Your task to perform on an android device: Open the stopwatch Image 0: 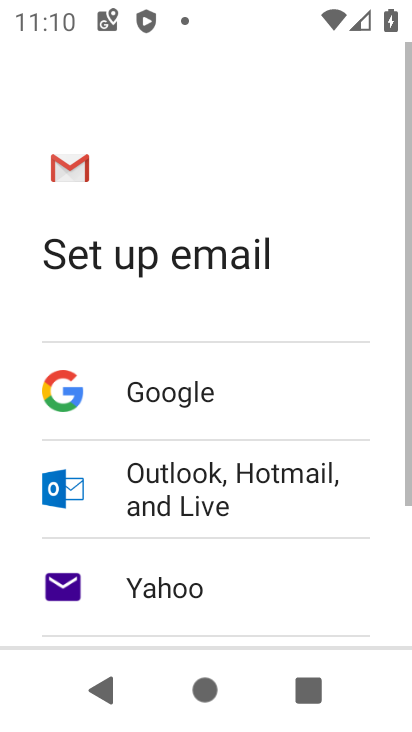
Step 0: press home button
Your task to perform on an android device: Open the stopwatch Image 1: 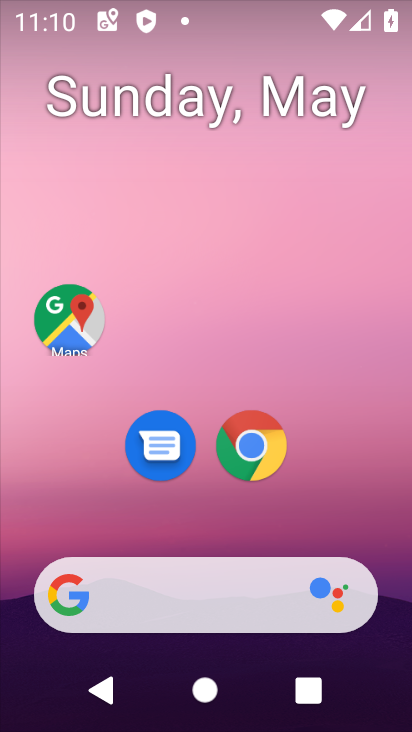
Step 1: drag from (336, 508) to (238, 52)
Your task to perform on an android device: Open the stopwatch Image 2: 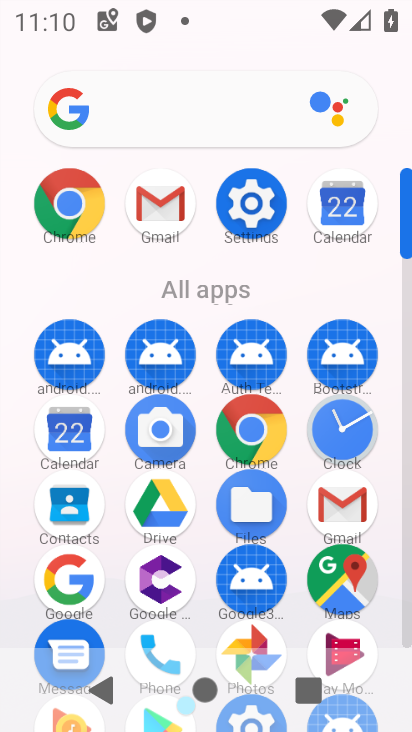
Step 2: click (344, 433)
Your task to perform on an android device: Open the stopwatch Image 3: 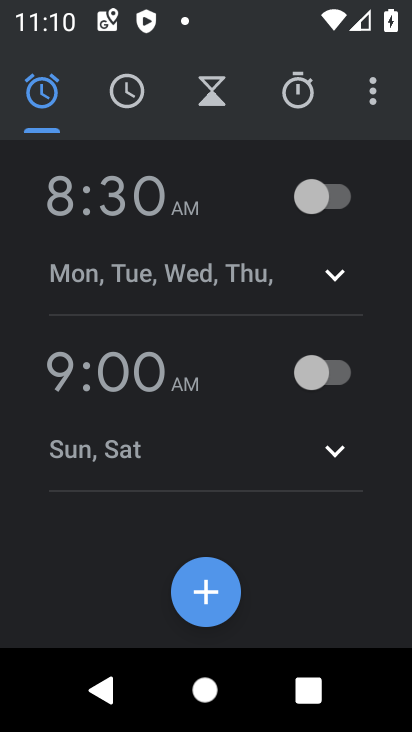
Step 3: click (293, 104)
Your task to perform on an android device: Open the stopwatch Image 4: 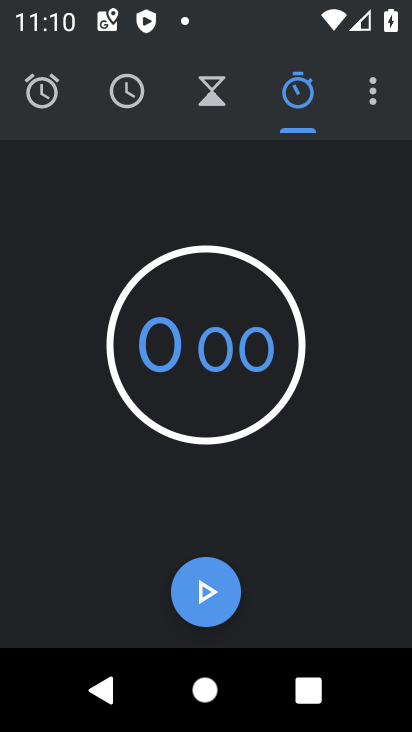
Step 4: task complete